Your task to perform on an android device: Open notification settings Image 0: 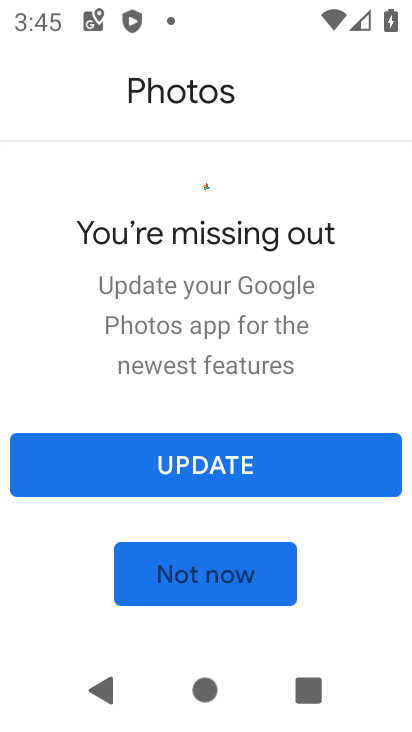
Step 0: press home button
Your task to perform on an android device: Open notification settings Image 1: 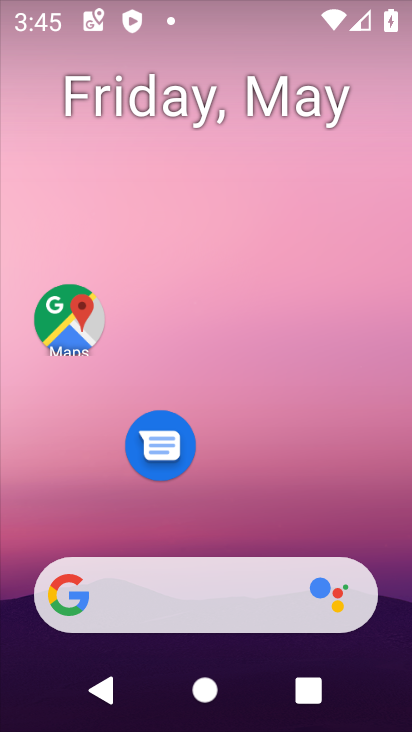
Step 1: drag from (228, 577) to (175, 14)
Your task to perform on an android device: Open notification settings Image 2: 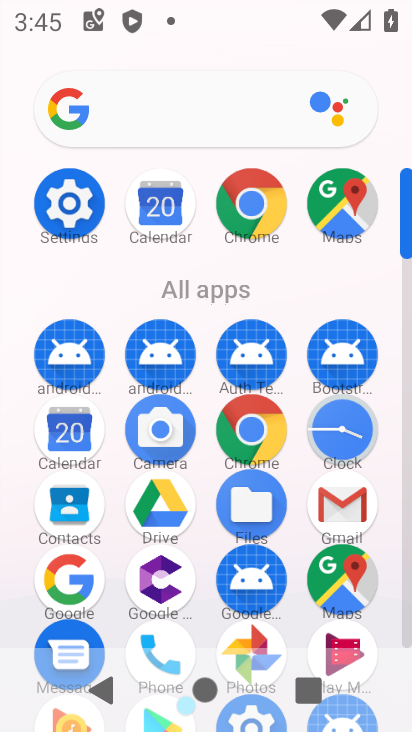
Step 2: click (68, 227)
Your task to perform on an android device: Open notification settings Image 3: 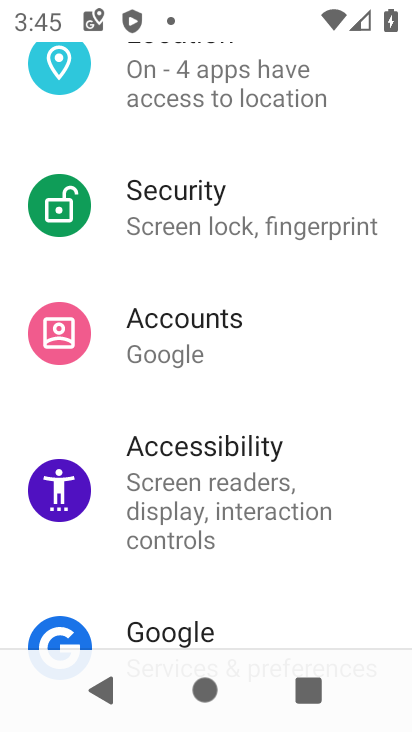
Step 3: drag from (233, 289) to (227, 618)
Your task to perform on an android device: Open notification settings Image 4: 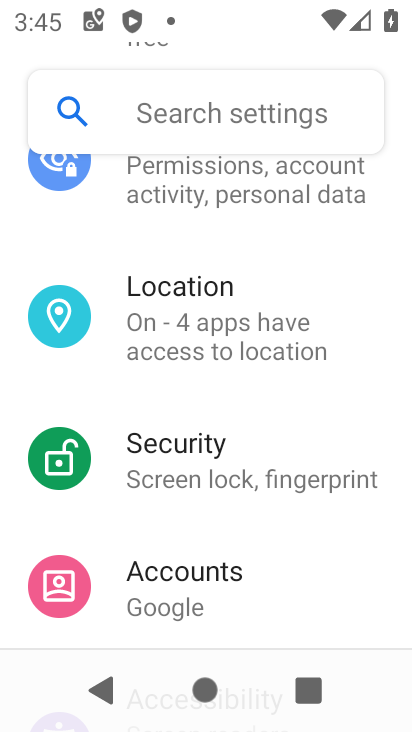
Step 4: drag from (247, 323) to (252, 720)
Your task to perform on an android device: Open notification settings Image 5: 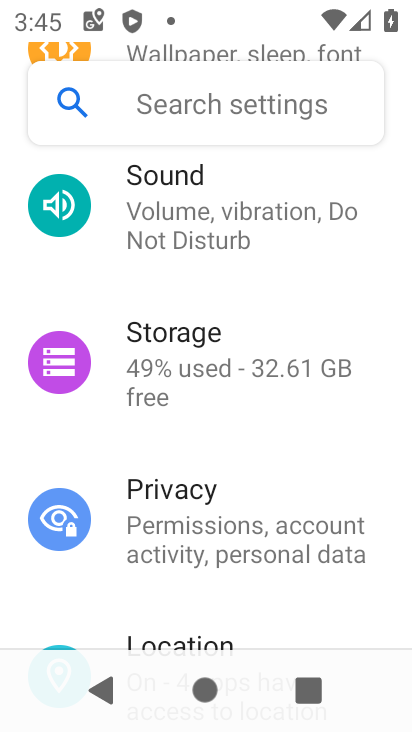
Step 5: drag from (270, 362) to (249, 723)
Your task to perform on an android device: Open notification settings Image 6: 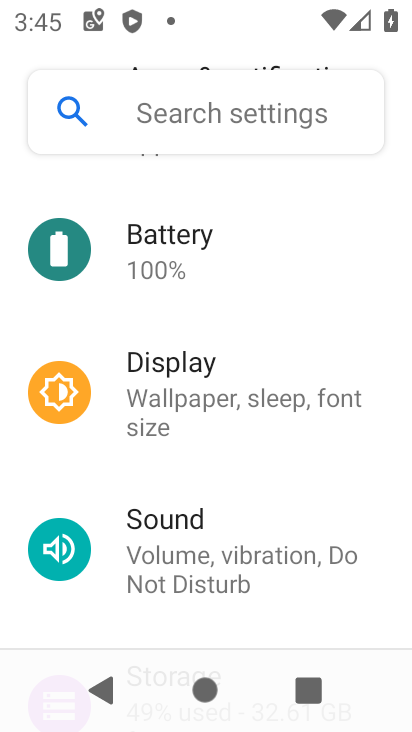
Step 6: drag from (245, 285) to (274, 711)
Your task to perform on an android device: Open notification settings Image 7: 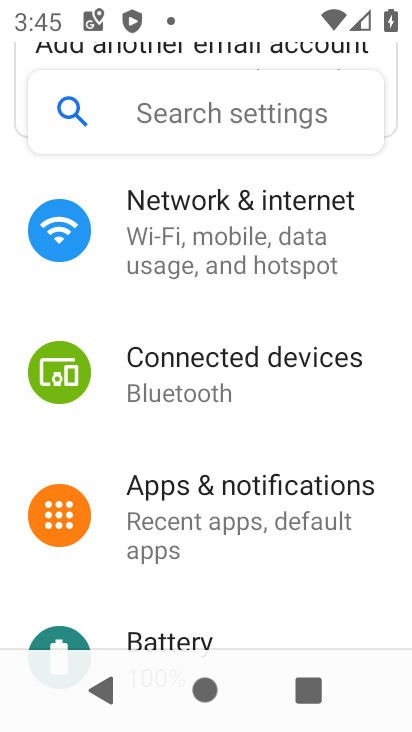
Step 7: click (257, 493)
Your task to perform on an android device: Open notification settings Image 8: 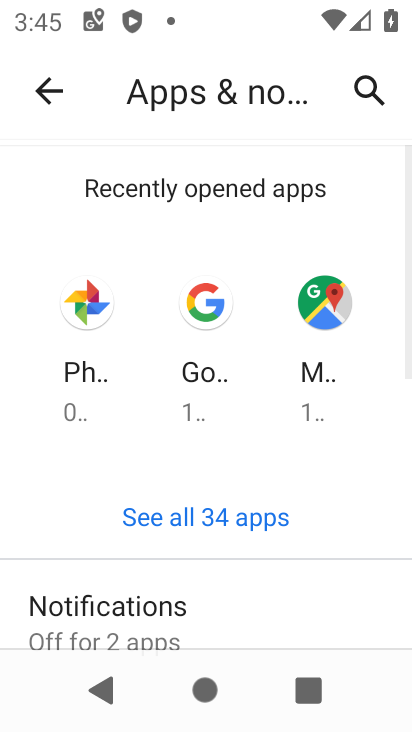
Step 8: drag from (198, 601) to (216, 303)
Your task to perform on an android device: Open notification settings Image 9: 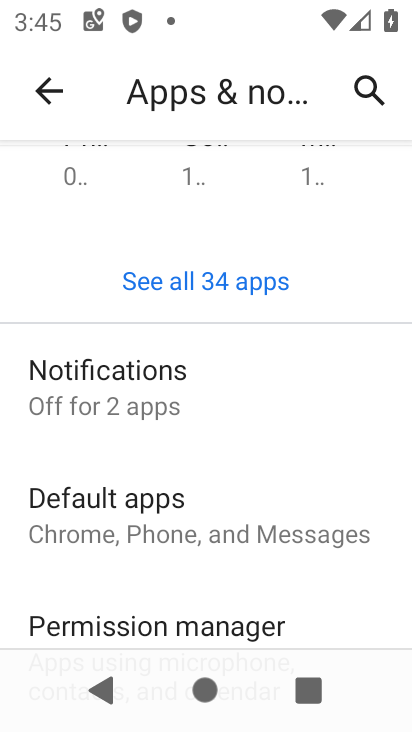
Step 9: click (137, 410)
Your task to perform on an android device: Open notification settings Image 10: 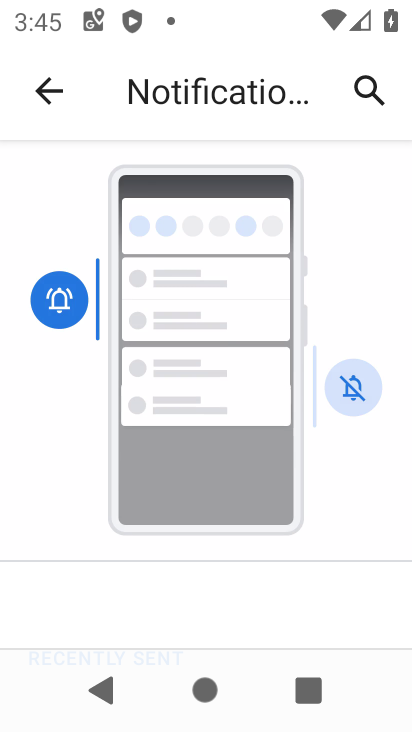
Step 10: task complete